Your task to perform on an android device: toggle data saver in the chrome app Image 0: 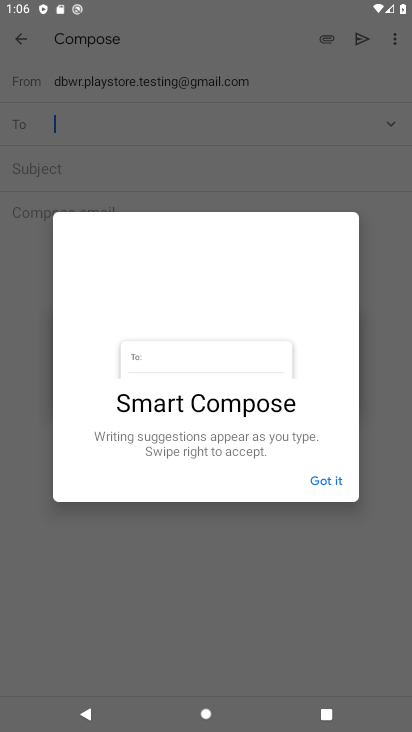
Step 0: click (324, 474)
Your task to perform on an android device: toggle data saver in the chrome app Image 1: 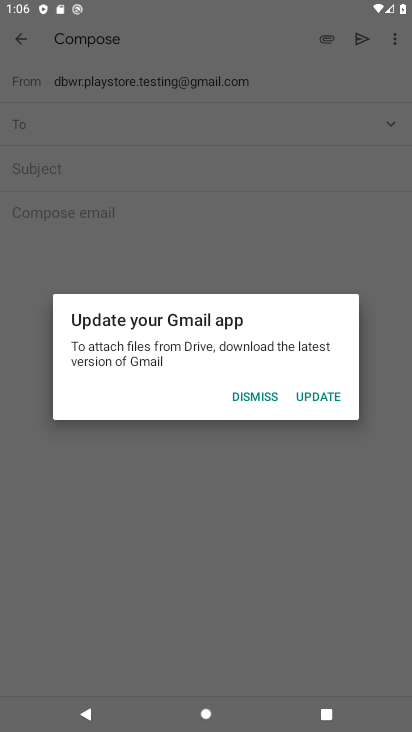
Step 1: press back button
Your task to perform on an android device: toggle data saver in the chrome app Image 2: 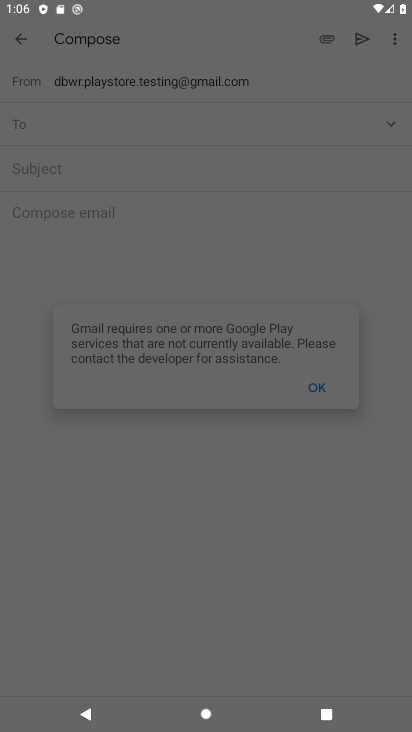
Step 2: press home button
Your task to perform on an android device: toggle data saver in the chrome app Image 3: 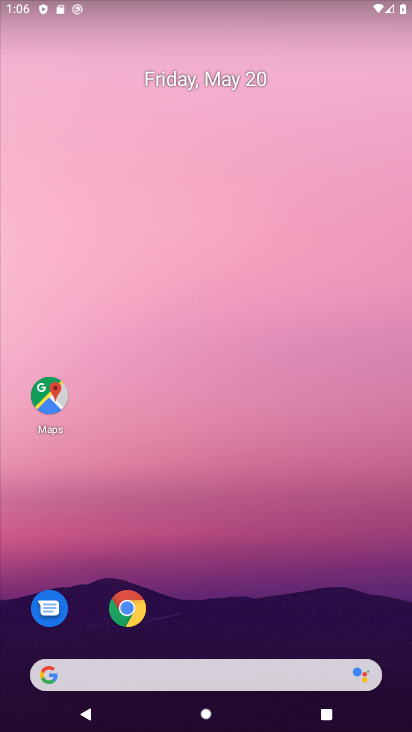
Step 3: drag from (209, 643) to (302, 154)
Your task to perform on an android device: toggle data saver in the chrome app Image 4: 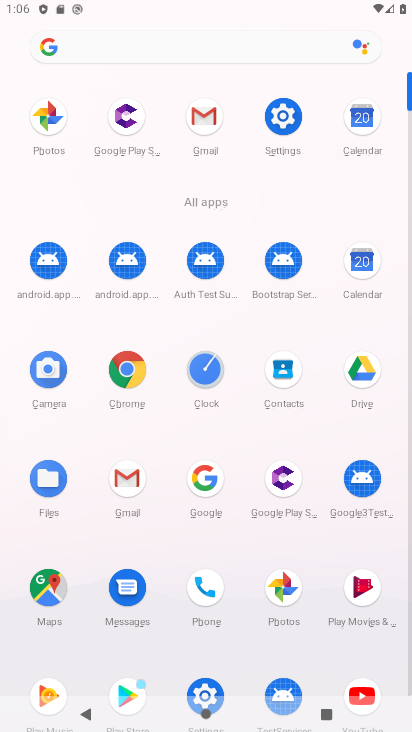
Step 4: click (281, 129)
Your task to perform on an android device: toggle data saver in the chrome app Image 5: 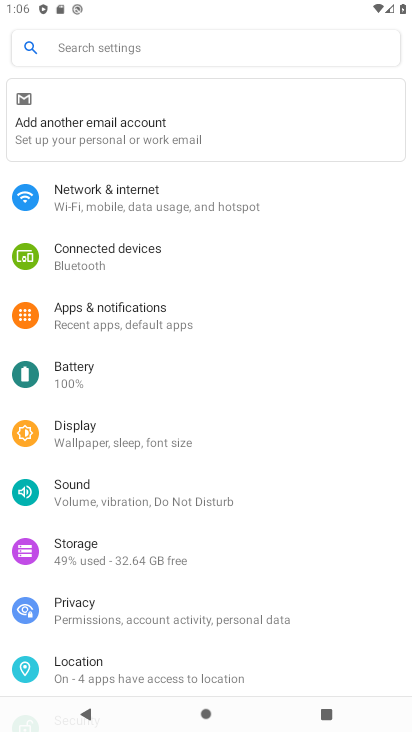
Step 5: press home button
Your task to perform on an android device: toggle data saver in the chrome app Image 6: 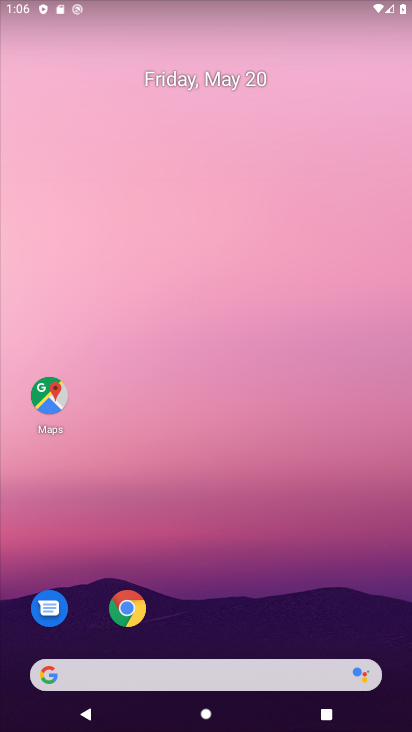
Step 6: click (118, 609)
Your task to perform on an android device: toggle data saver in the chrome app Image 7: 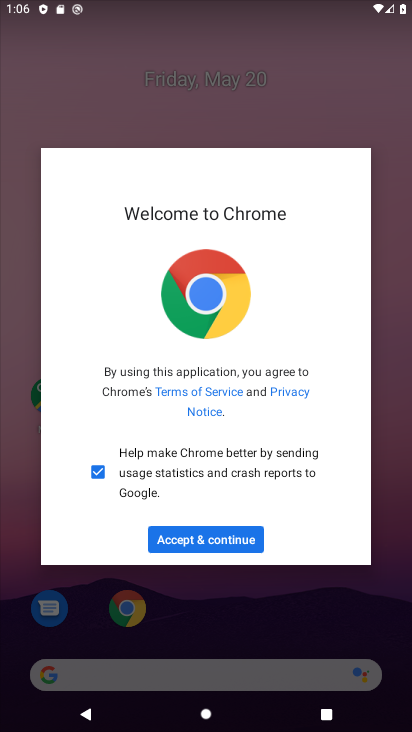
Step 7: click (218, 538)
Your task to perform on an android device: toggle data saver in the chrome app Image 8: 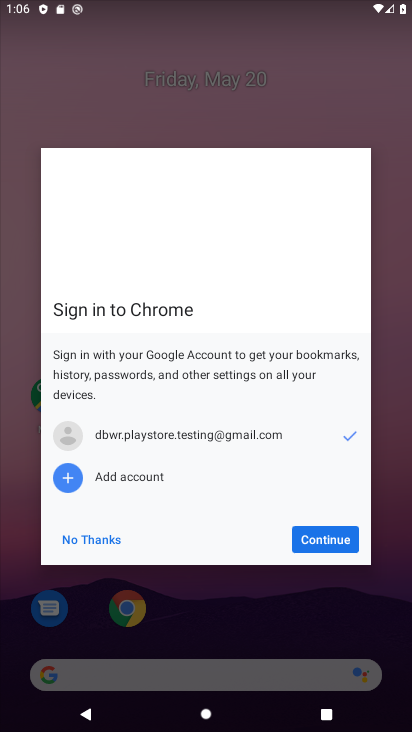
Step 8: click (318, 535)
Your task to perform on an android device: toggle data saver in the chrome app Image 9: 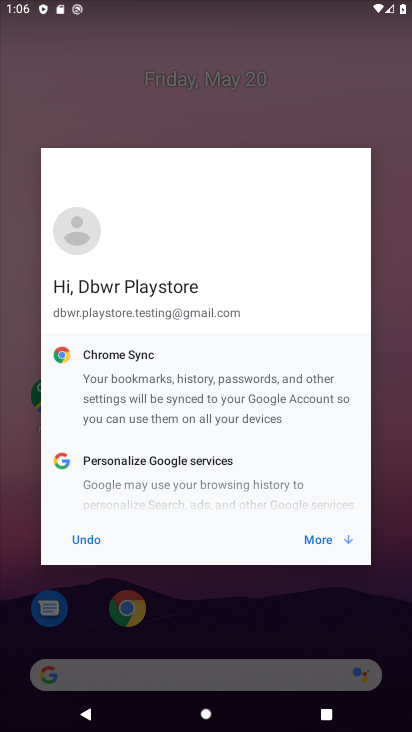
Step 9: click (323, 533)
Your task to perform on an android device: toggle data saver in the chrome app Image 10: 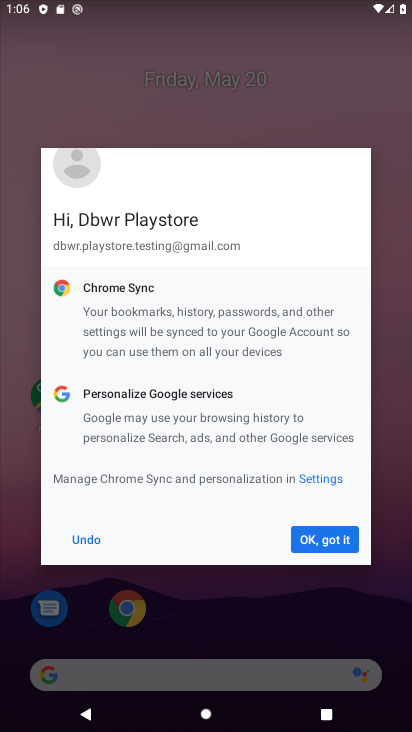
Step 10: click (329, 533)
Your task to perform on an android device: toggle data saver in the chrome app Image 11: 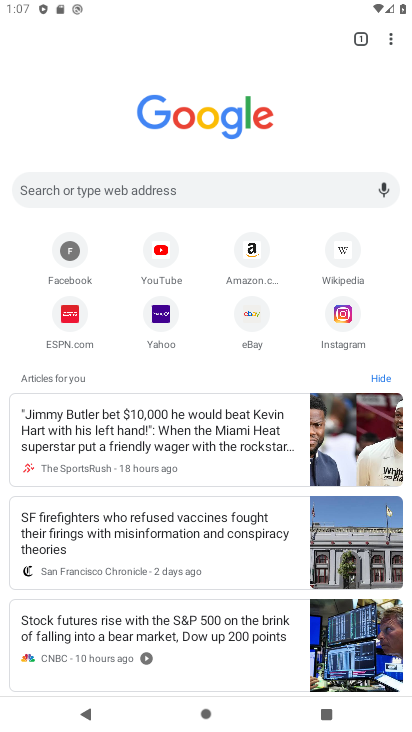
Step 11: drag from (390, 34) to (256, 326)
Your task to perform on an android device: toggle data saver in the chrome app Image 12: 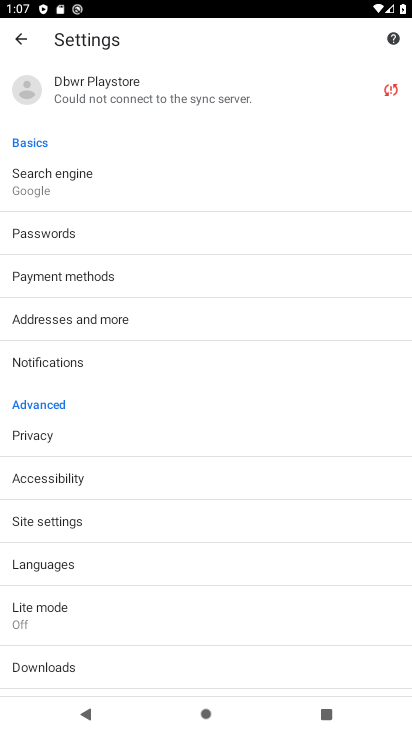
Step 12: click (47, 607)
Your task to perform on an android device: toggle data saver in the chrome app Image 13: 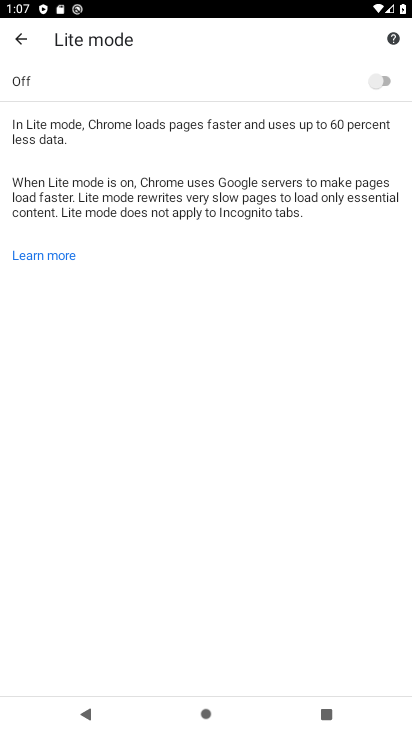
Step 13: click (376, 84)
Your task to perform on an android device: toggle data saver in the chrome app Image 14: 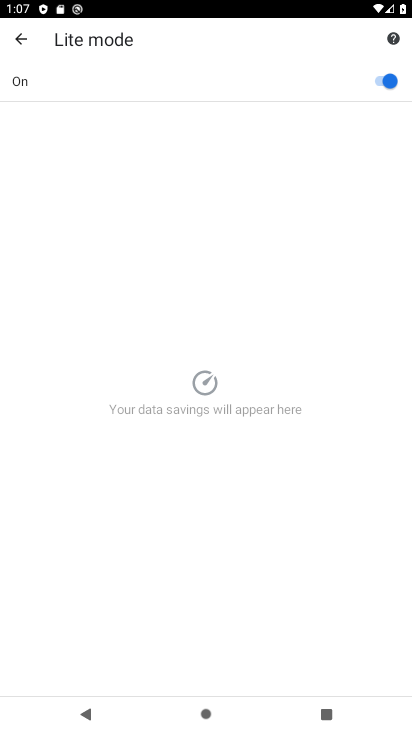
Step 14: task complete